Your task to perform on an android device: clear history in the chrome app Image 0: 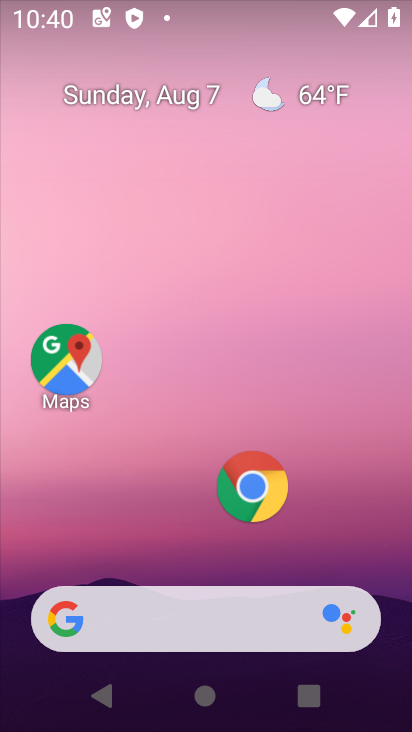
Step 0: click (251, 515)
Your task to perform on an android device: clear history in the chrome app Image 1: 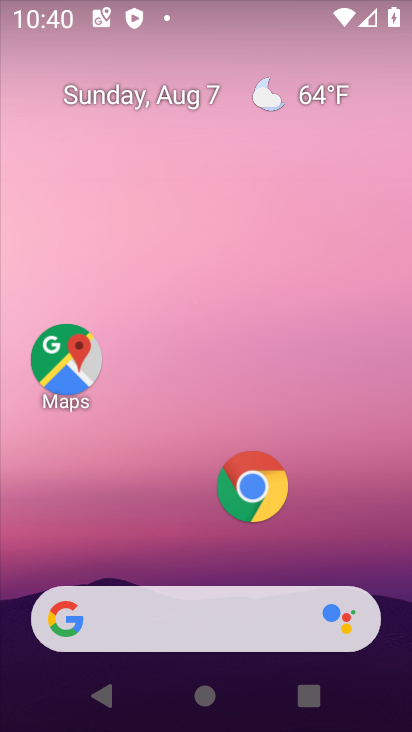
Step 1: click (251, 515)
Your task to perform on an android device: clear history in the chrome app Image 2: 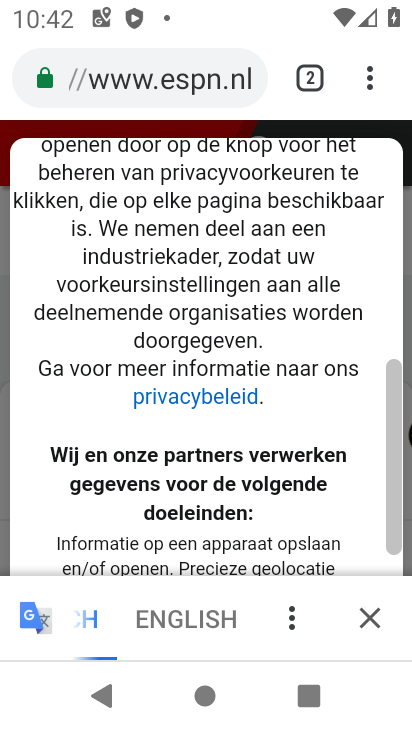
Step 2: click (366, 84)
Your task to perform on an android device: clear history in the chrome app Image 3: 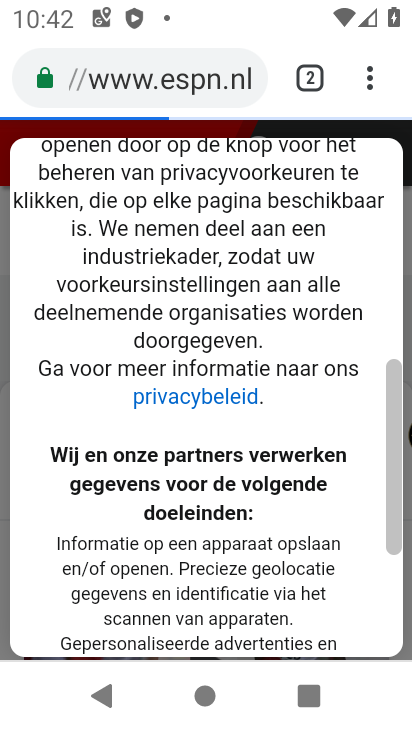
Step 3: click (366, 82)
Your task to perform on an android device: clear history in the chrome app Image 4: 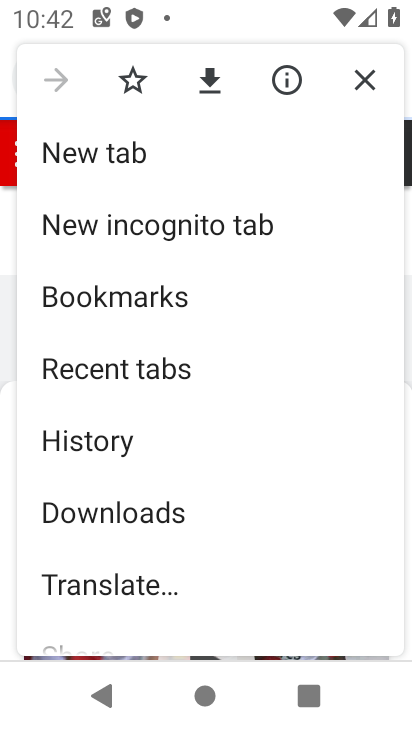
Step 4: click (111, 442)
Your task to perform on an android device: clear history in the chrome app Image 5: 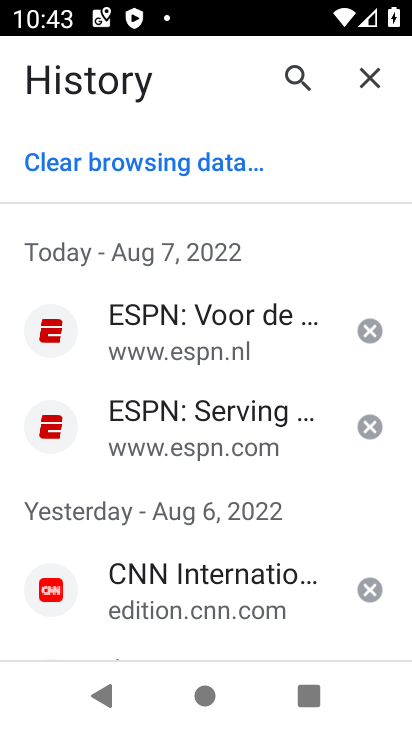
Step 5: click (223, 159)
Your task to perform on an android device: clear history in the chrome app Image 6: 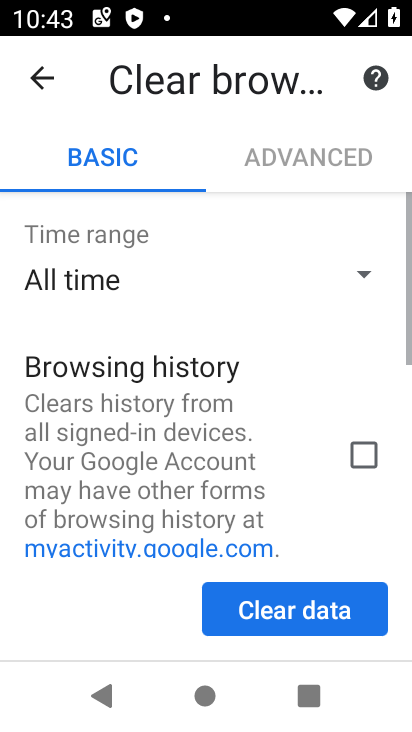
Step 6: click (259, 618)
Your task to perform on an android device: clear history in the chrome app Image 7: 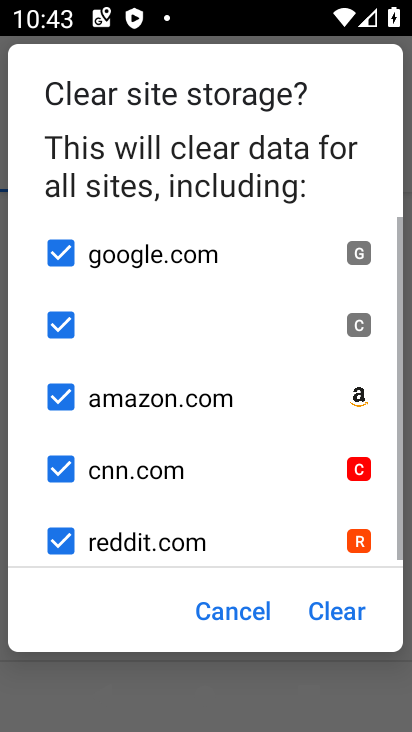
Step 7: click (337, 613)
Your task to perform on an android device: clear history in the chrome app Image 8: 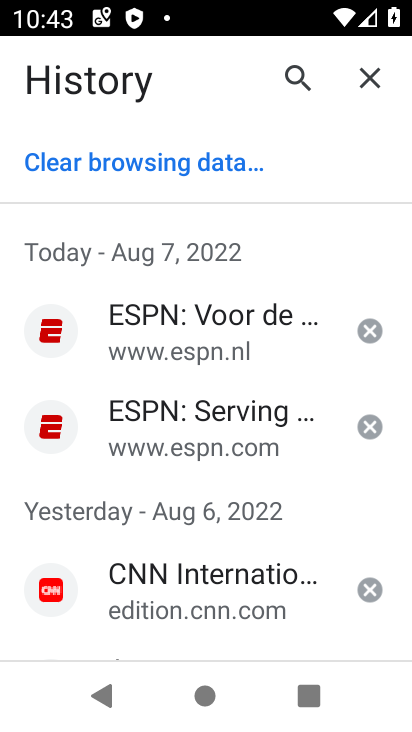
Step 8: task complete